Your task to perform on an android device: Go to CNN.com Image 0: 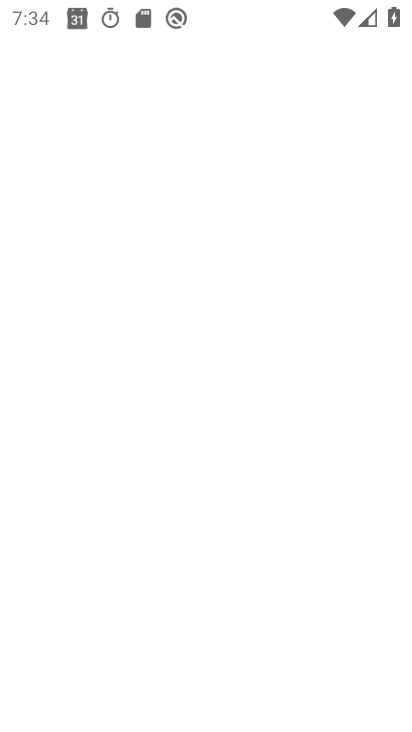
Step 0: press home button
Your task to perform on an android device: Go to CNN.com Image 1: 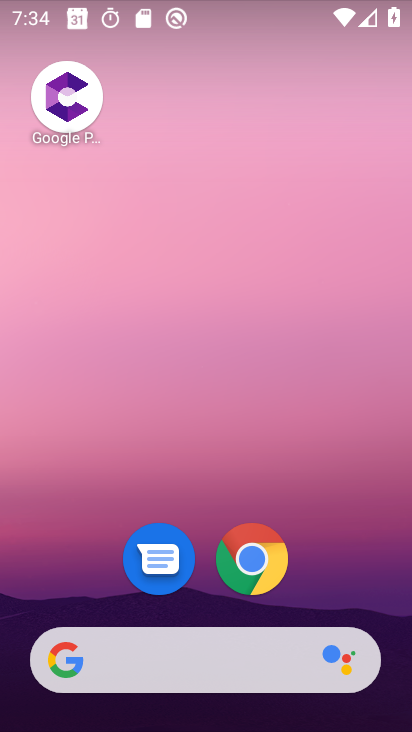
Step 1: click (246, 557)
Your task to perform on an android device: Go to CNN.com Image 2: 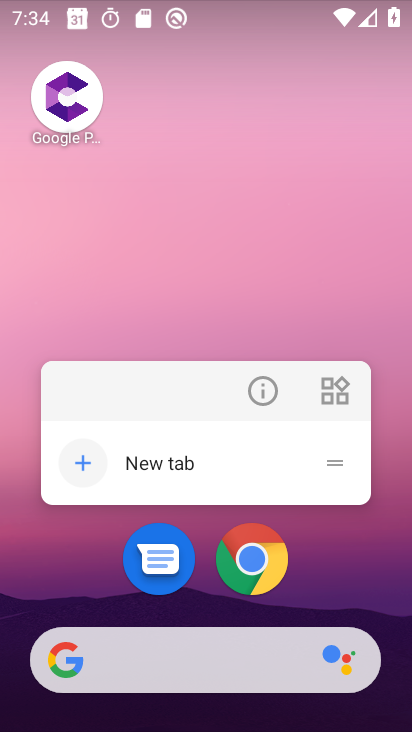
Step 2: click (256, 389)
Your task to perform on an android device: Go to CNN.com Image 3: 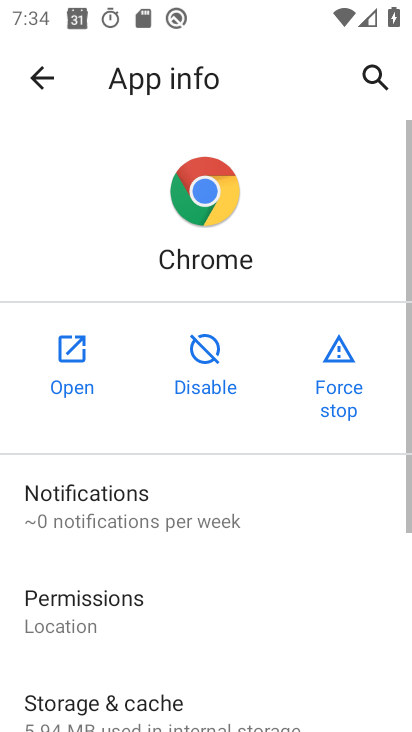
Step 3: click (50, 372)
Your task to perform on an android device: Go to CNN.com Image 4: 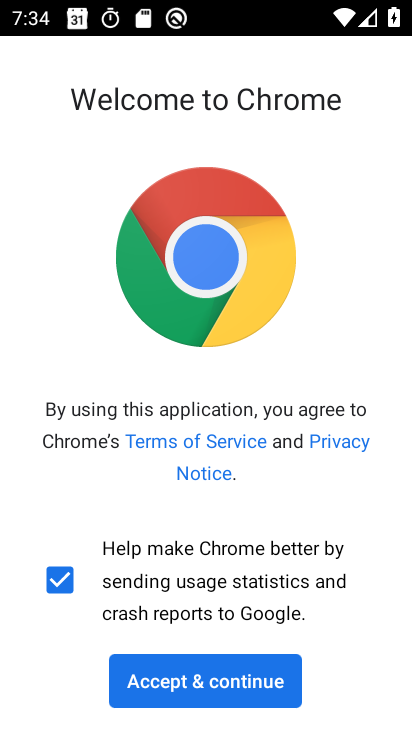
Step 4: click (184, 679)
Your task to perform on an android device: Go to CNN.com Image 5: 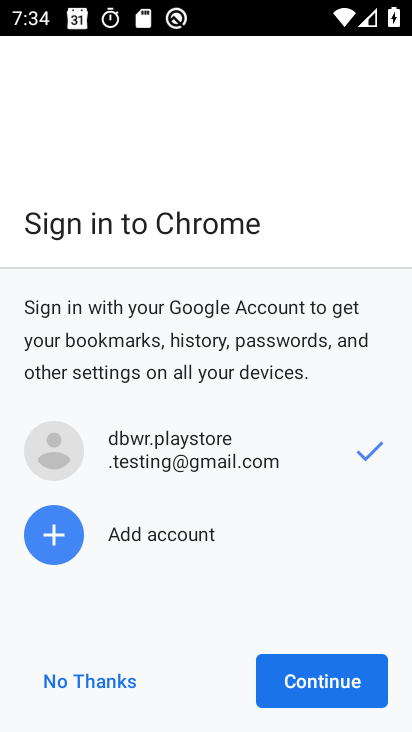
Step 5: click (305, 694)
Your task to perform on an android device: Go to CNN.com Image 6: 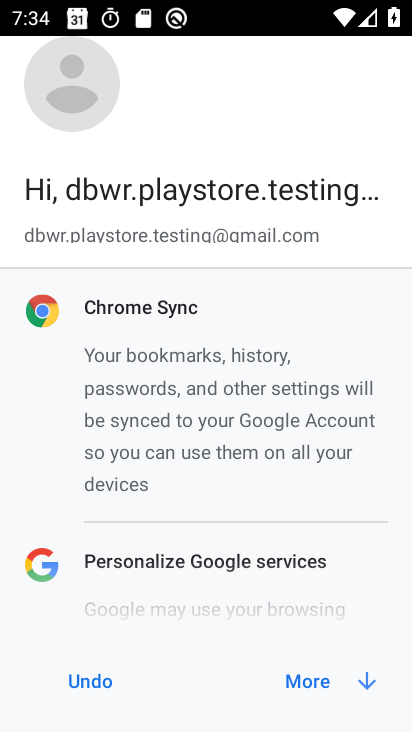
Step 6: click (305, 680)
Your task to perform on an android device: Go to CNN.com Image 7: 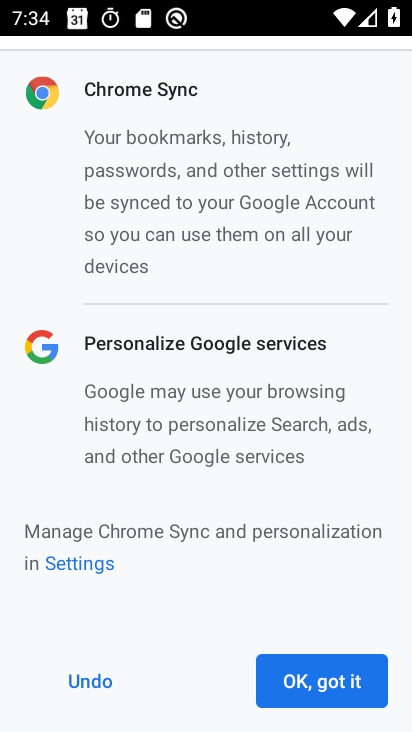
Step 7: click (301, 673)
Your task to perform on an android device: Go to CNN.com Image 8: 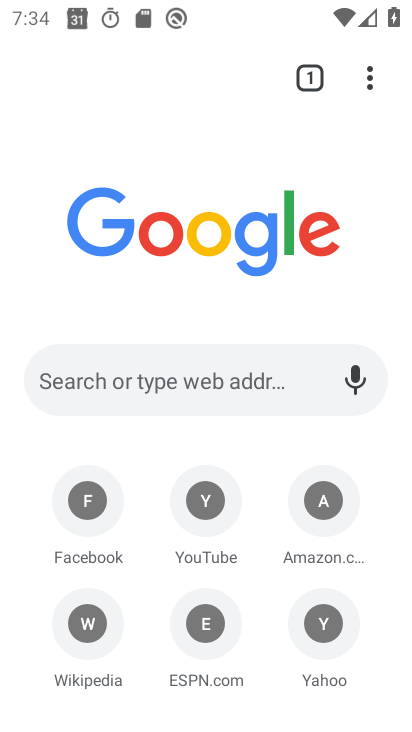
Step 8: click (159, 379)
Your task to perform on an android device: Go to CNN.com Image 9: 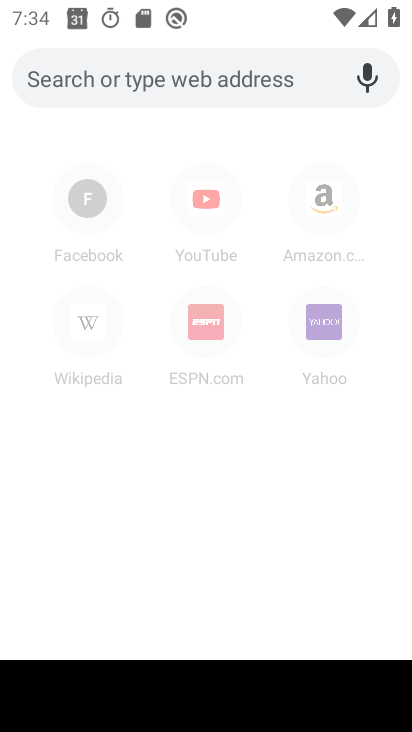
Step 9: type "CNN.com"
Your task to perform on an android device: Go to CNN.com Image 10: 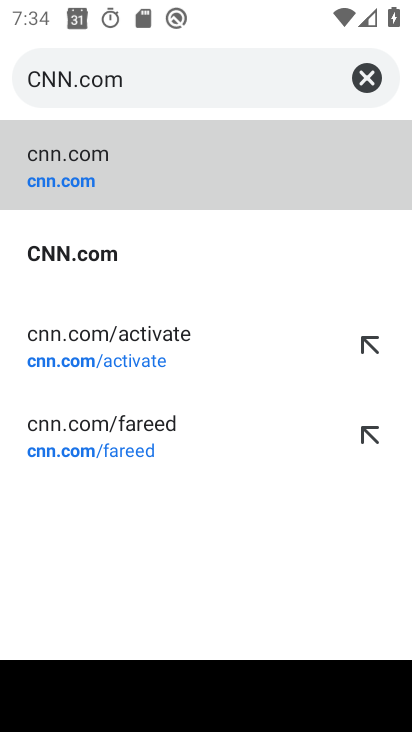
Step 10: click (60, 254)
Your task to perform on an android device: Go to CNN.com Image 11: 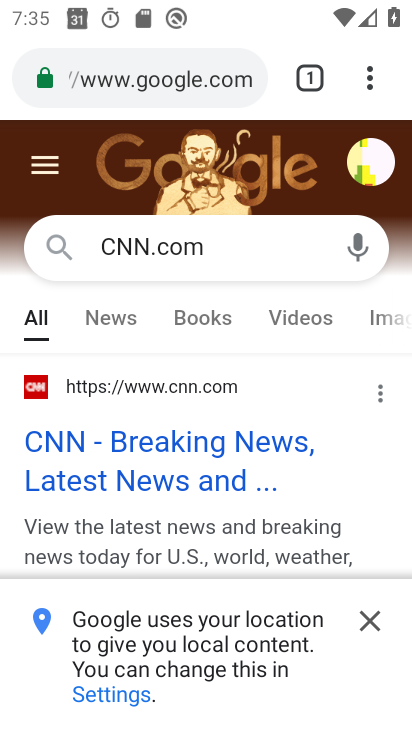
Step 11: task complete